Your task to perform on an android device: Go to location settings Image 0: 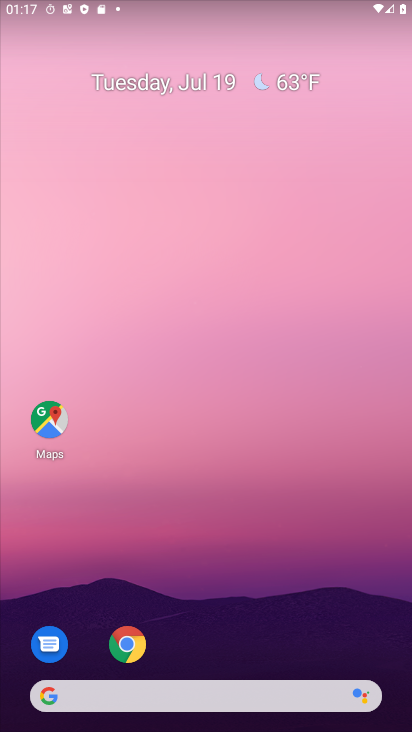
Step 0: drag from (209, 699) to (184, 240)
Your task to perform on an android device: Go to location settings Image 1: 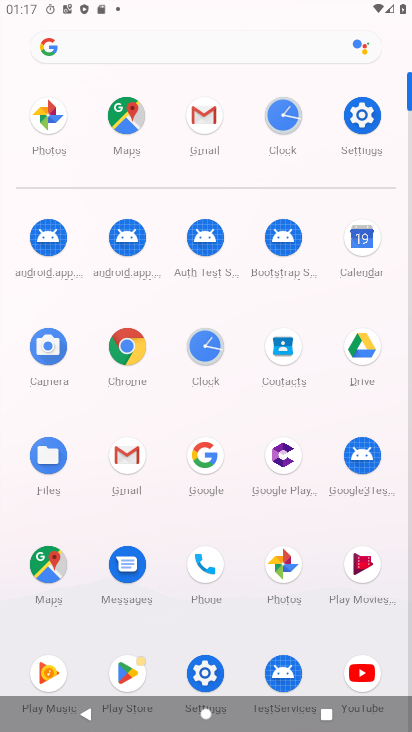
Step 1: click (360, 117)
Your task to perform on an android device: Go to location settings Image 2: 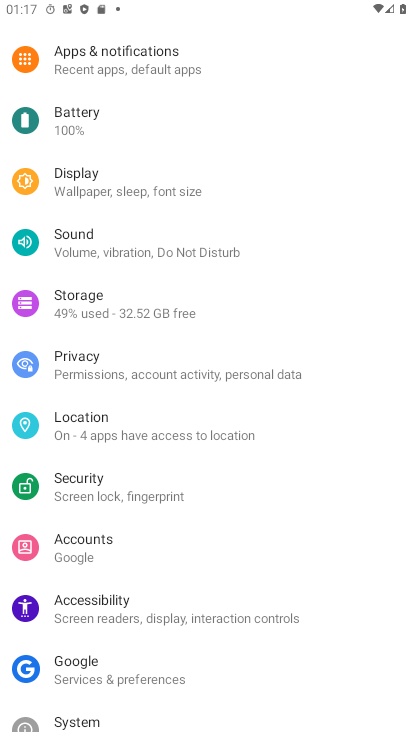
Step 2: click (75, 423)
Your task to perform on an android device: Go to location settings Image 3: 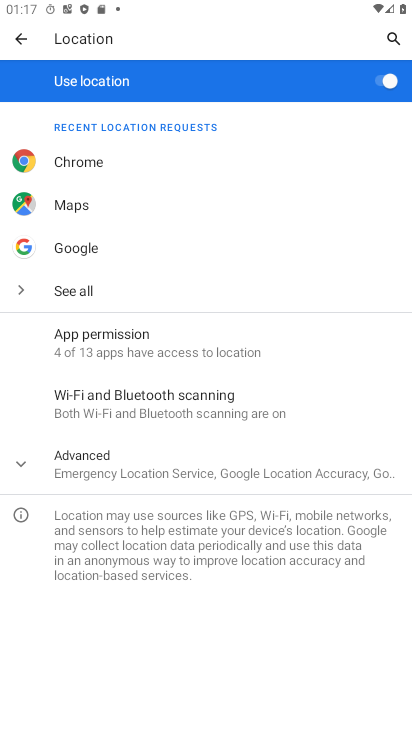
Step 3: task complete